Your task to perform on an android device: Open eBay Image 0: 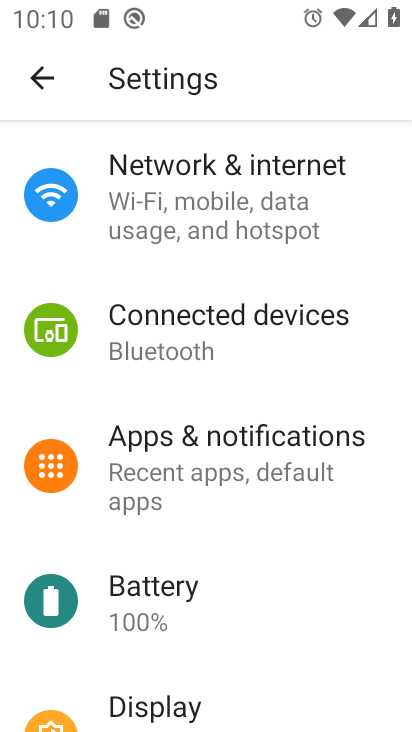
Step 0: press home button
Your task to perform on an android device: Open eBay Image 1: 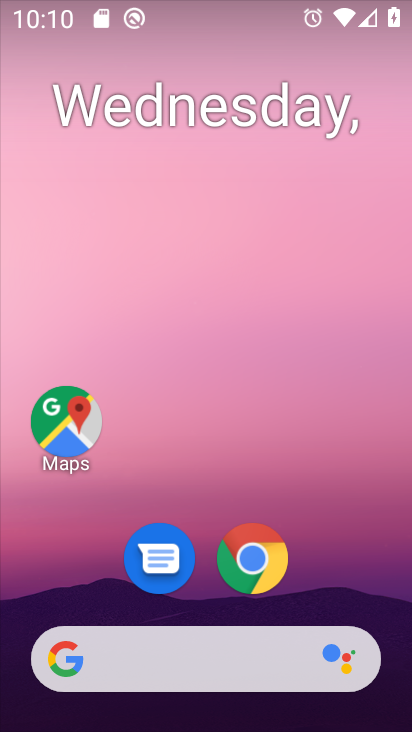
Step 1: drag from (368, 580) to (336, 679)
Your task to perform on an android device: Open eBay Image 2: 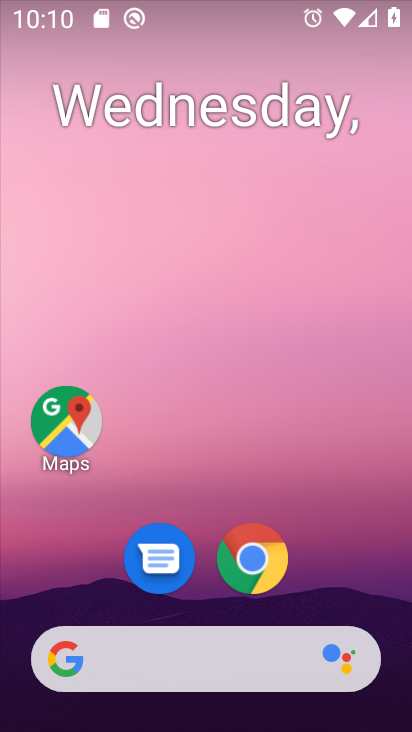
Step 2: drag from (330, 461) to (342, 48)
Your task to perform on an android device: Open eBay Image 3: 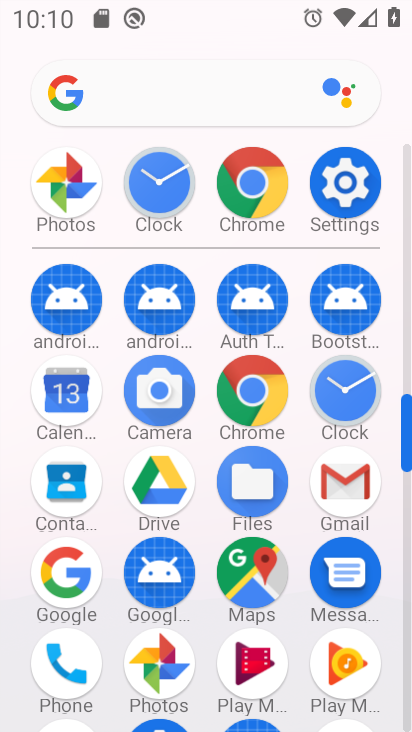
Step 3: click (259, 385)
Your task to perform on an android device: Open eBay Image 4: 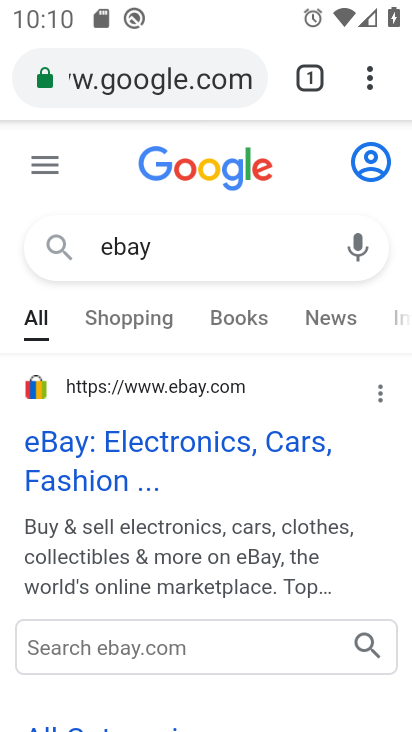
Step 4: click (212, 88)
Your task to perform on an android device: Open eBay Image 5: 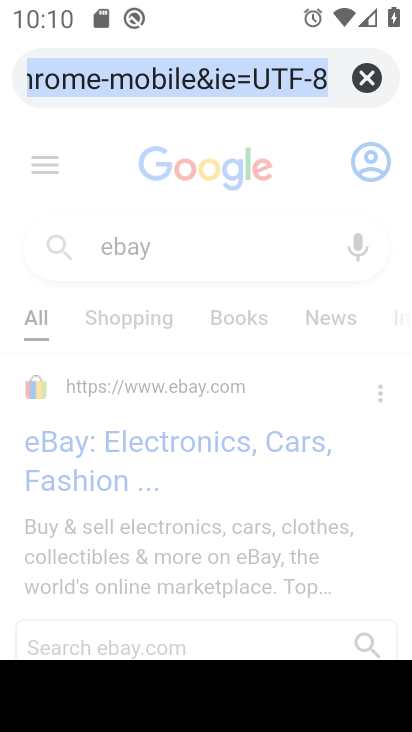
Step 5: type "ebay"
Your task to perform on an android device: Open eBay Image 6: 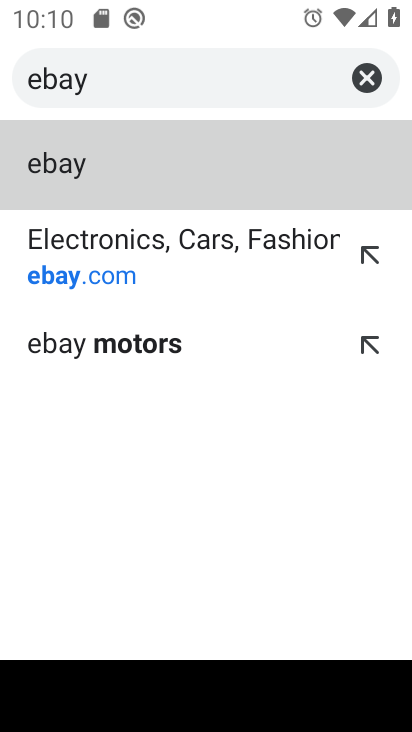
Step 6: click (252, 178)
Your task to perform on an android device: Open eBay Image 7: 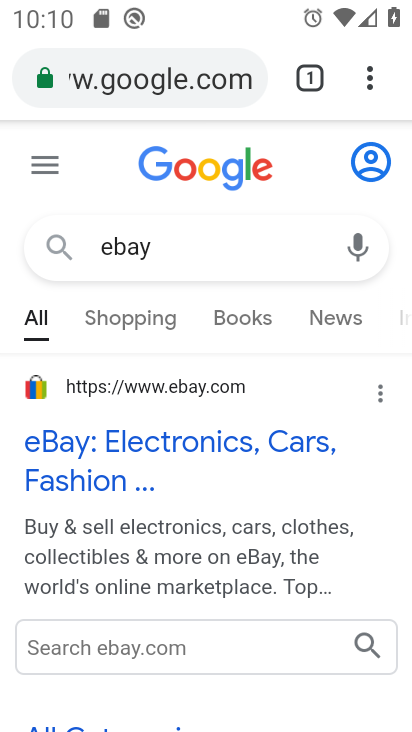
Step 7: task complete